Your task to perform on an android device: turn on sleep mode Image 0: 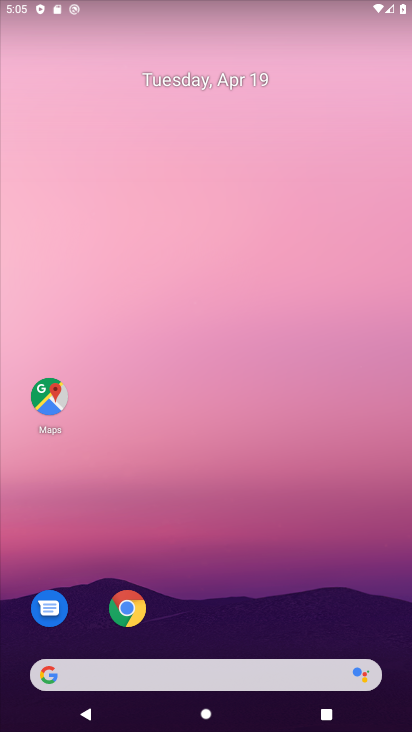
Step 0: drag from (366, 429) to (403, 13)
Your task to perform on an android device: turn on sleep mode Image 1: 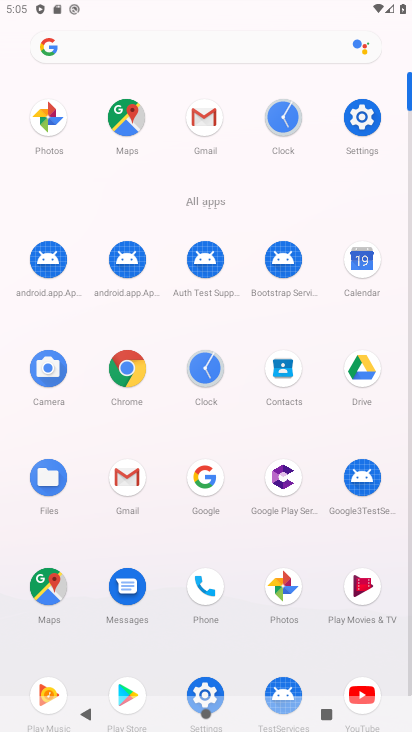
Step 1: click (366, 119)
Your task to perform on an android device: turn on sleep mode Image 2: 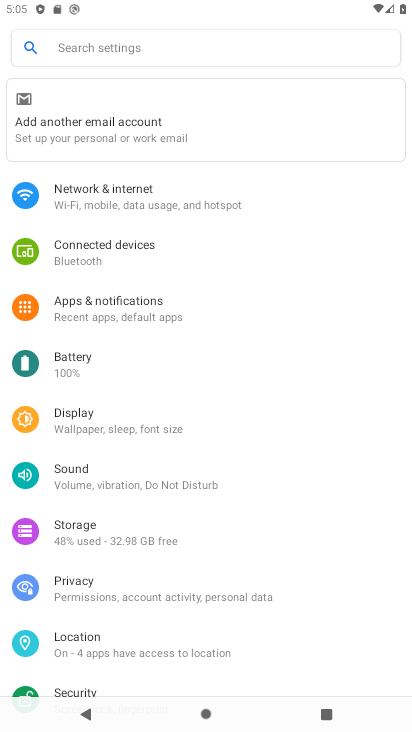
Step 2: click (83, 413)
Your task to perform on an android device: turn on sleep mode Image 3: 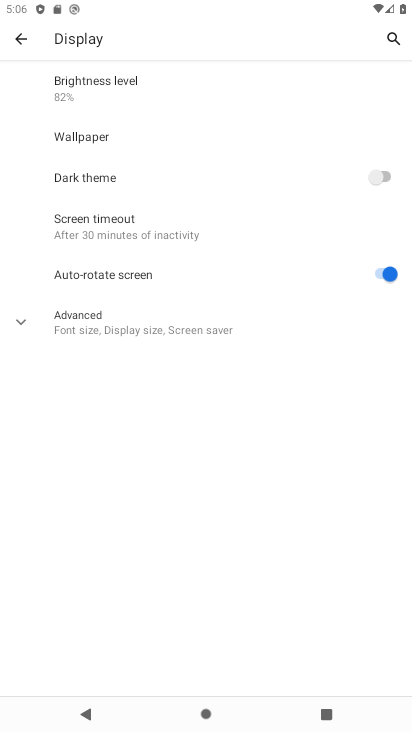
Step 3: click (21, 325)
Your task to perform on an android device: turn on sleep mode Image 4: 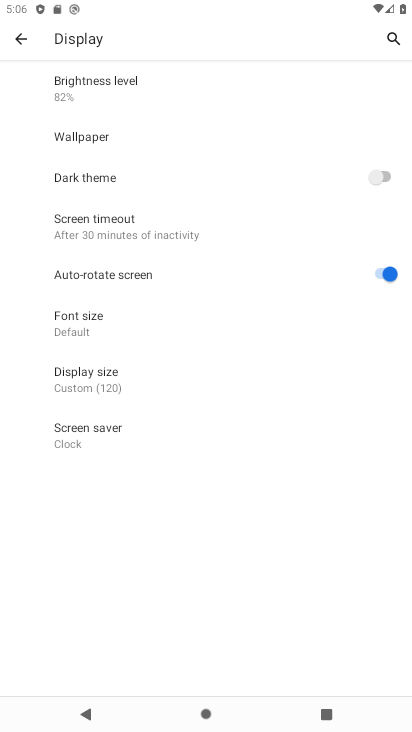
Step 4: task complete